Your task to perform on an android device: Open battery settings Image 0: 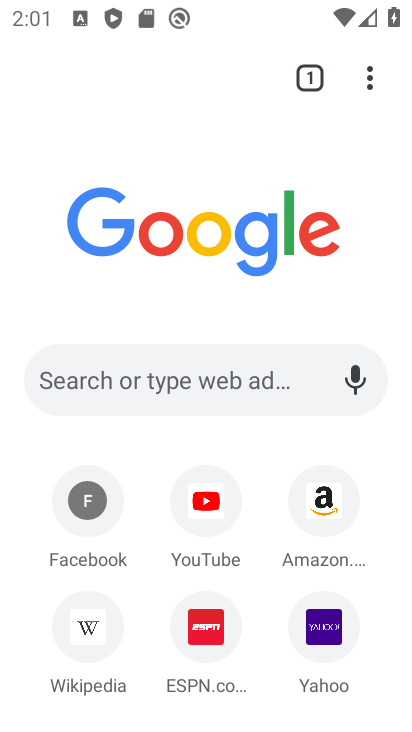
Step 0: press home button
Your task to perform on an android device: Open battery settings Image 1: 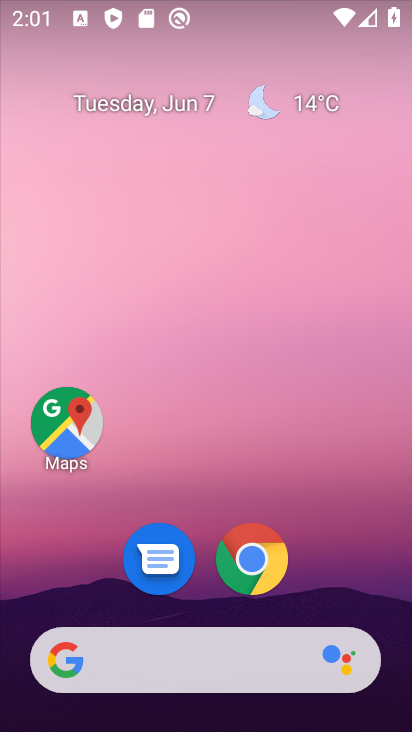
Step 1: drag from (131, 322) to (266, 121)
Your task to perform on an android device: Open battery settings Image 2: 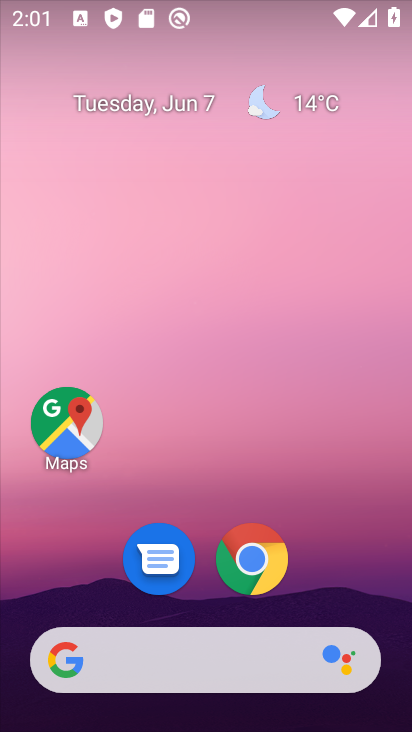
Step 2: drag from (33, 568) to (292, 120)
Your task to perform on an android device: Open battery settings Image 3: 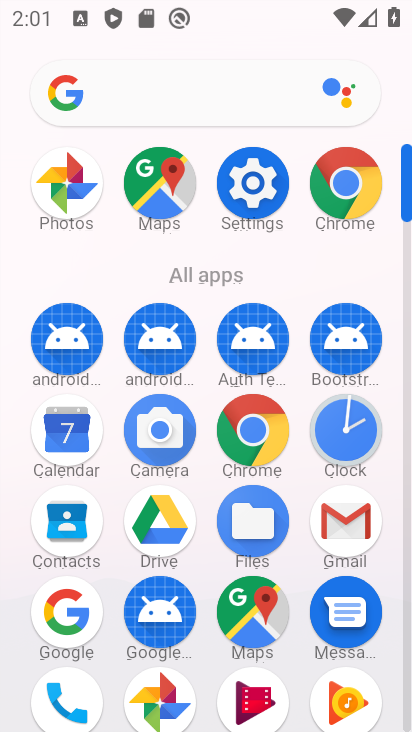
Step 3: click (262, 185)
Your task to perform on an android device: Open battery settings Image 4: 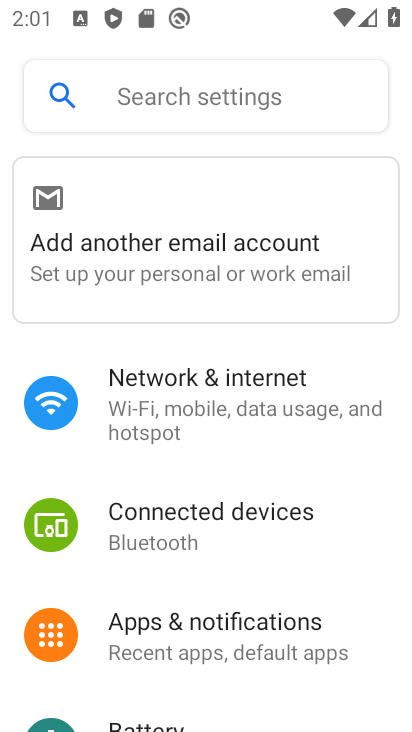
Step 4: drag from (16, 604) to (200, 205)
Your task to perform on an android device: Open battery settings Image 5: 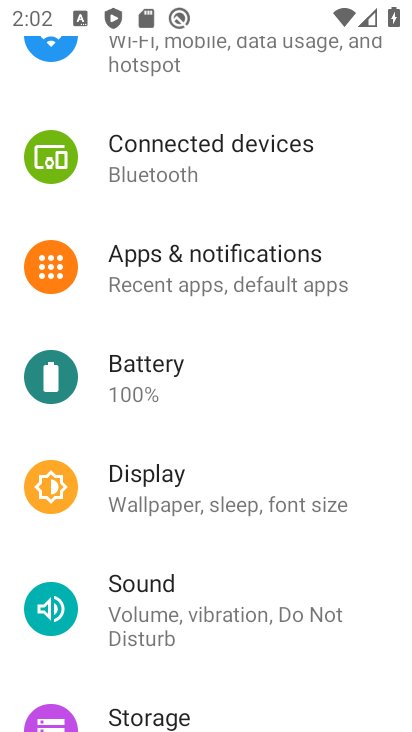
Step 5: click (110, 383)
Your task to perform on an android device: Open battery settings Image 6: 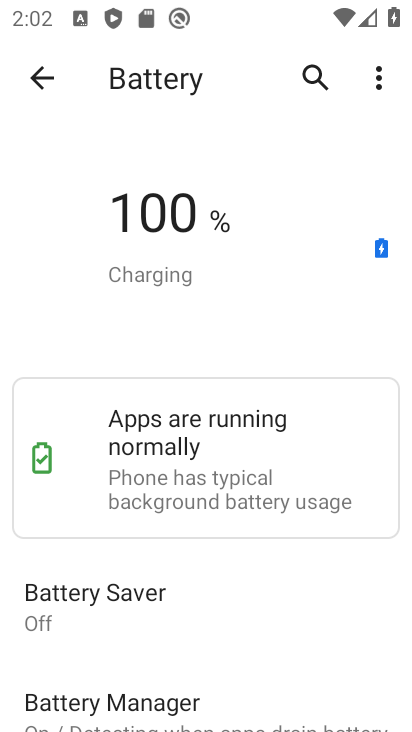
Step 6: task complete